Your task to perform on an android device: search for starred emails in the gmail app Image 0: 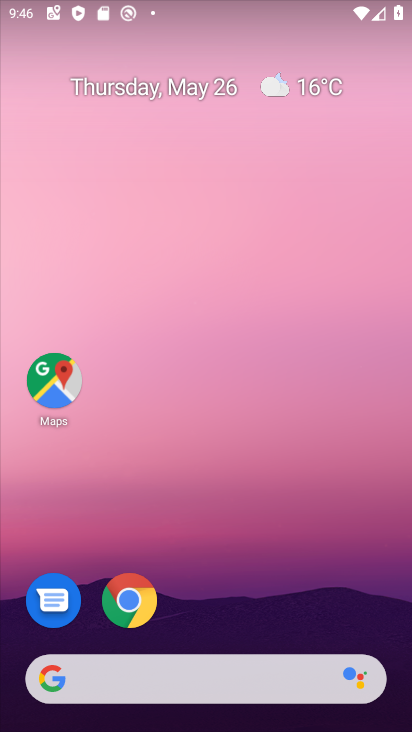
Step 0: drag from (269, 241) to (250, 147)
Your task to perform on an android device: search for starred emails in the gmail app Image 1: 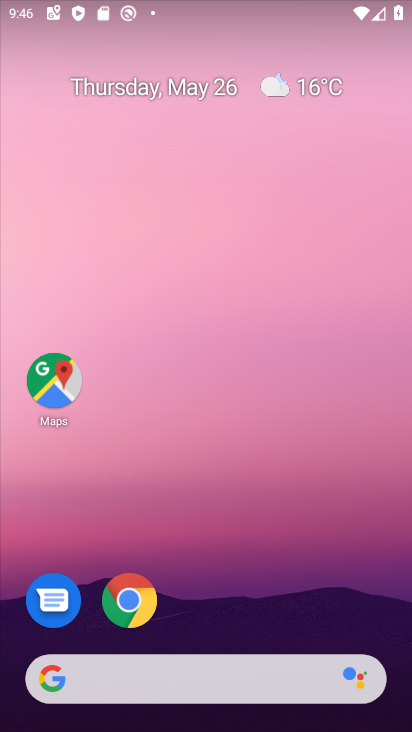
Step 1: drag from (221, 643) to (279, 83)
Your task to perform on an android device: search for starred emails in the gmail app Image 2: 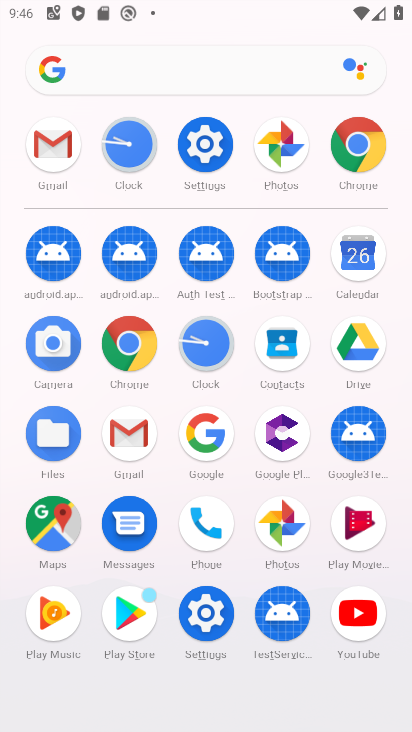
Step 2: click (57, 129)
Your task to perform on an android device: search for starred emails in the gmail app Image 3: 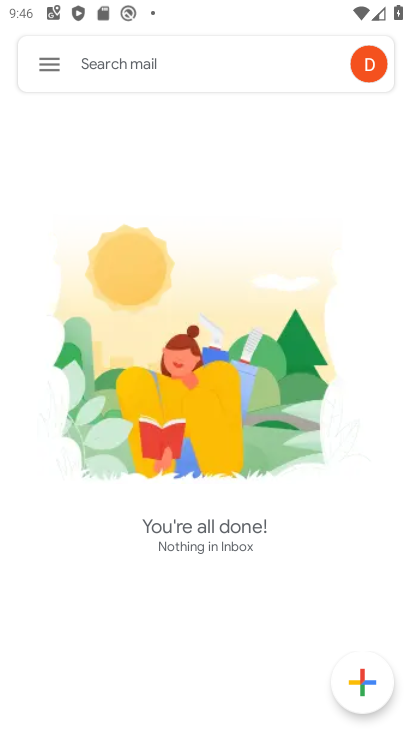
Step 3: click (45, 65)
Your task to perform on an android device: search for starred emails in the gmail app Image 4: 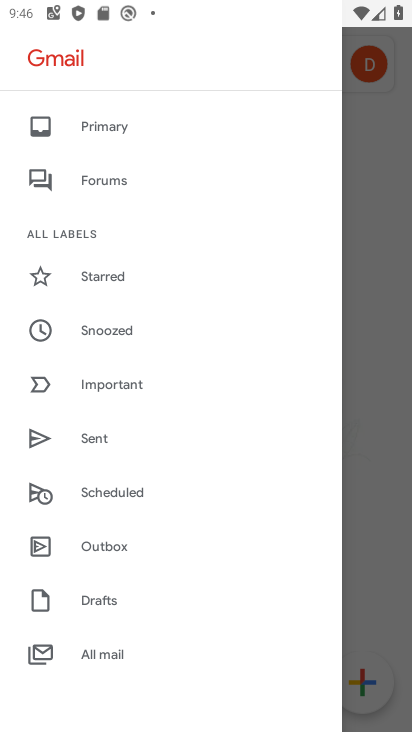
Step 4: click (117, 269)
Your task to perform on an android device: search for starred emails in the gmail app Image 5: 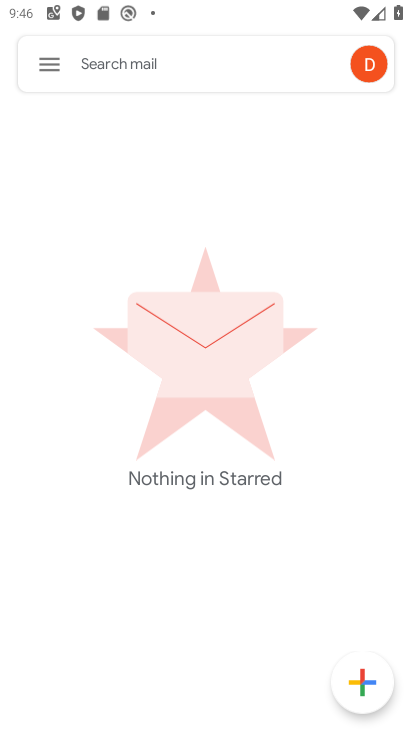
Step 5: task complete